Your task to perform on an android device: delete location history Image 0: 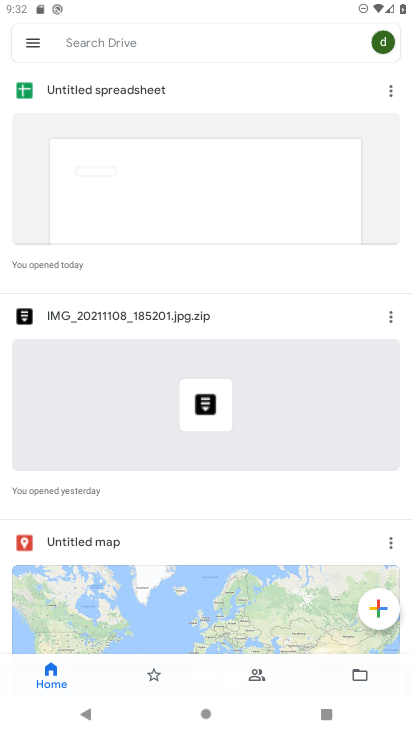
Step 0: press home button
Your task to perform on an android device: delete location history Image 1: 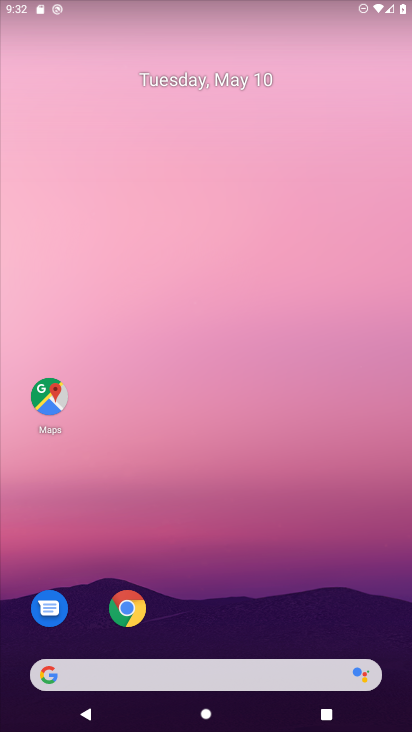
Step 1: drag from (390, 633) to (225, 63)
Your task to perform on an android device: delete location history Image 2: 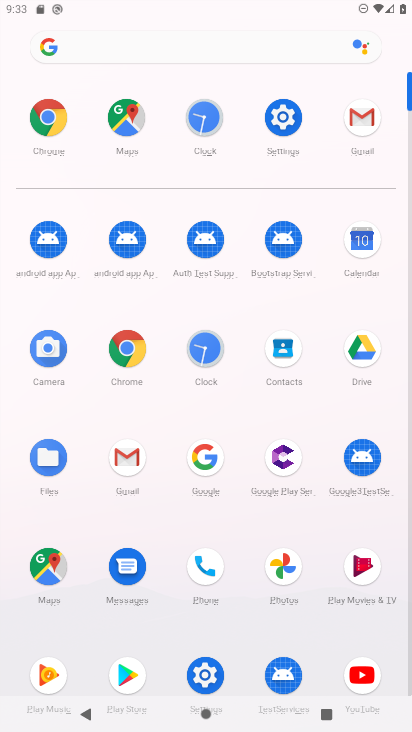
Step 2: click (209, 684)
Your task to perform on an android device: delete location history Image 3: 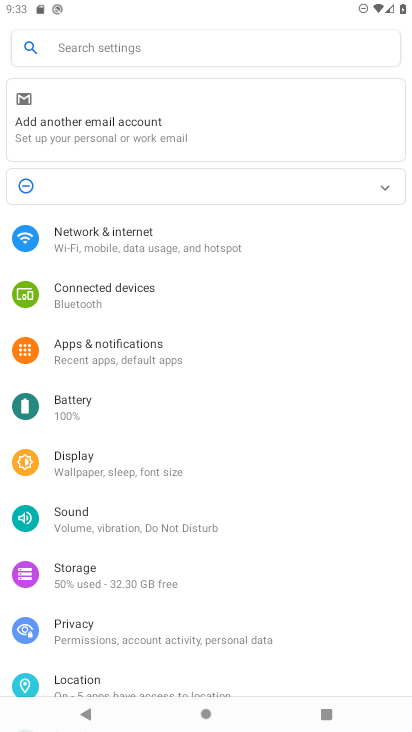
Step 3: click (104, 676)
Your task to perform on an android device: delete location history Image 4: 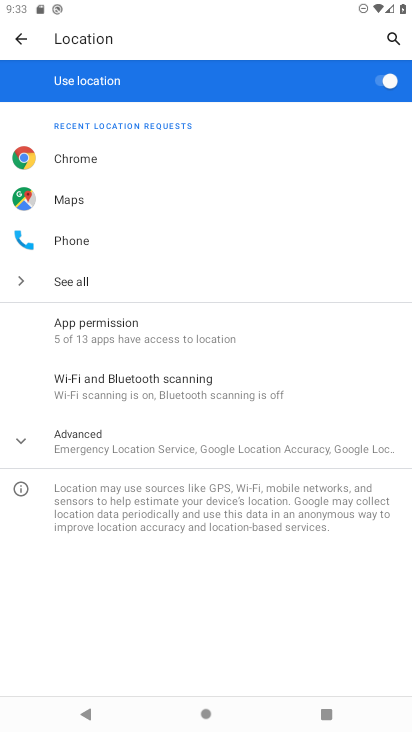
Step 4: click (97, 442)
Your task to perform on an android device: delete location history Image 5: 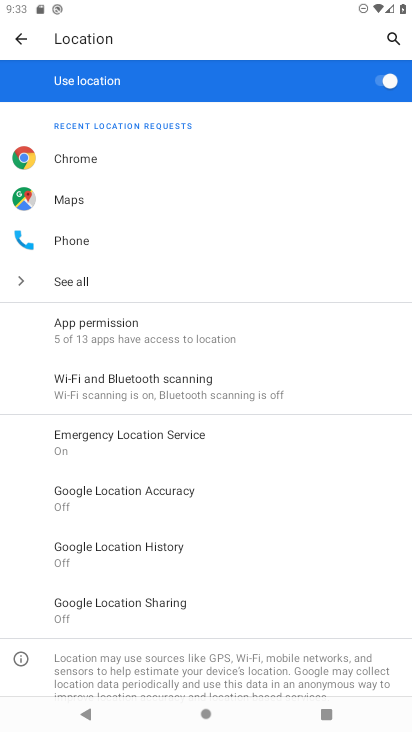
Step 5: click (167, 551)
Your task to perform on an android device: delete location history Image 6: 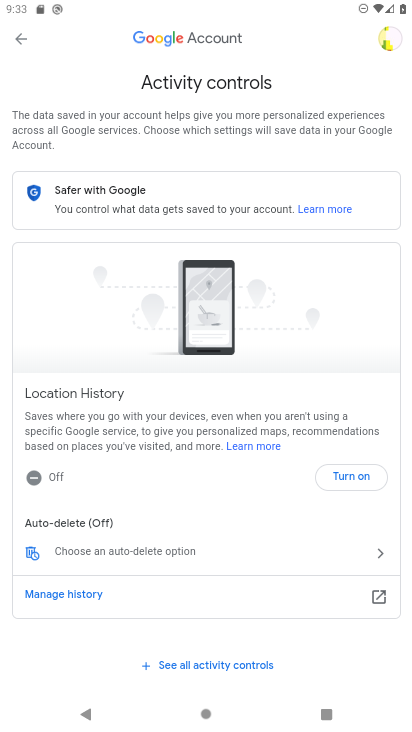
Step 6: click (199, 548)
Your task to perform on an android device: delete location history Image 7: 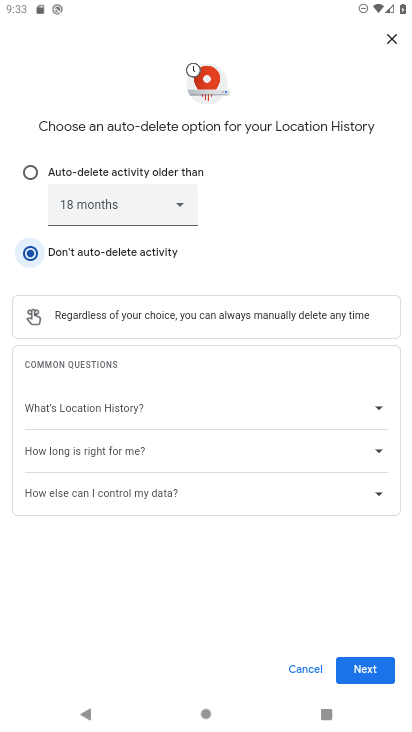
Step 7: click (348, 671)
Your task to perform on an android device: delete location history Image 8: 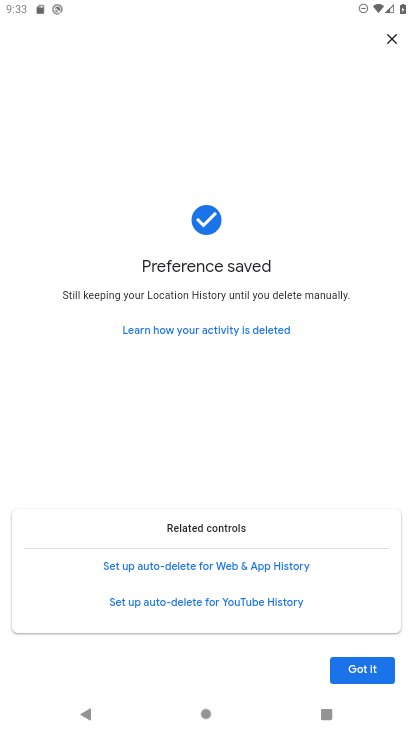
Step 8: task complete